Your task to perform on an android device: manage bookmarks in the chrome app Image 0: 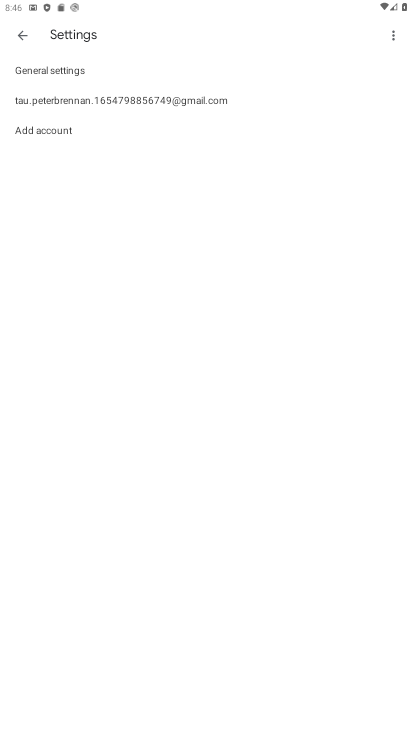
Step 0: click (70, 101)
Your task to perform on an android device: manage bookmarks in the chrome app Image 1: 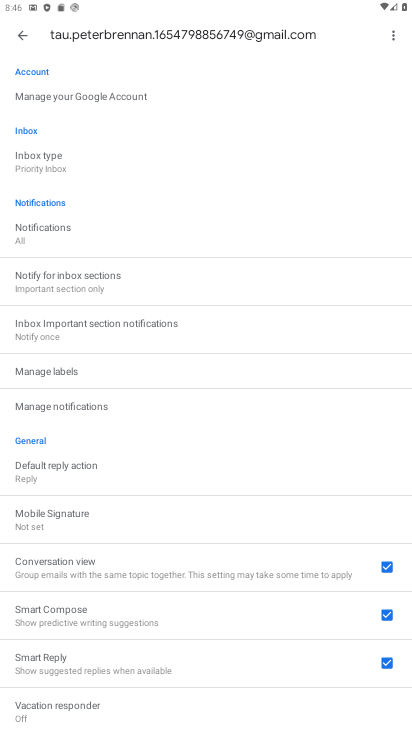
Step 1: press home button
Your task to perform on an android device: manage bookmarks in the chrome app Image 2: 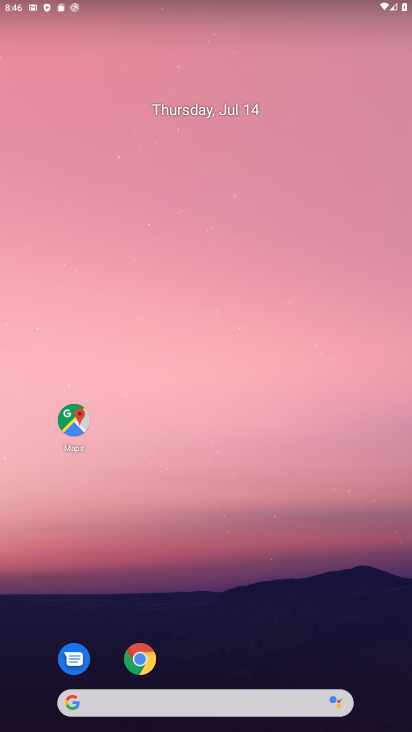
Step 2: click (150, 661)
Your task to perform on an android device: manage bookmarks in the chrome app Image 3: 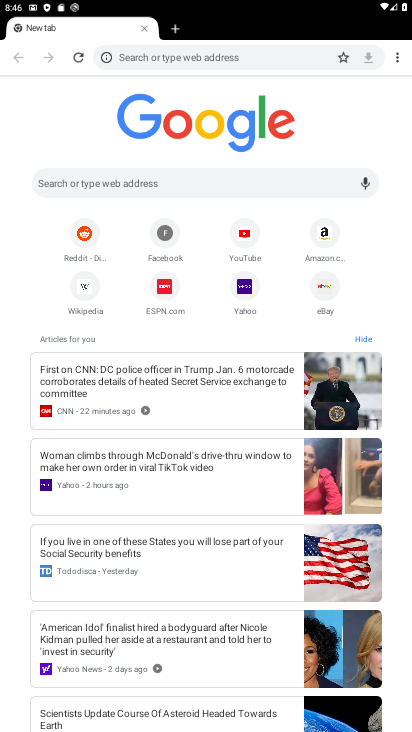
Step 3: drag from (401, 56) to (328, 114)
Your task to perform on an android device: manage bookmarks in the chrome app Image 4: 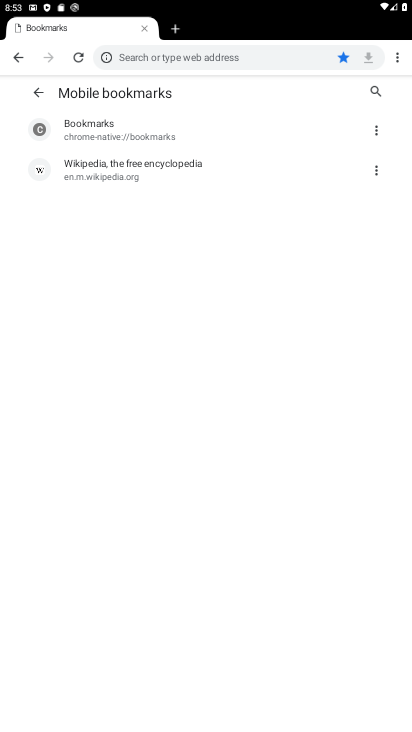
Step 4: press home button
Your task to perform on an android device: manage bookmarks in the chrome app Image 5: 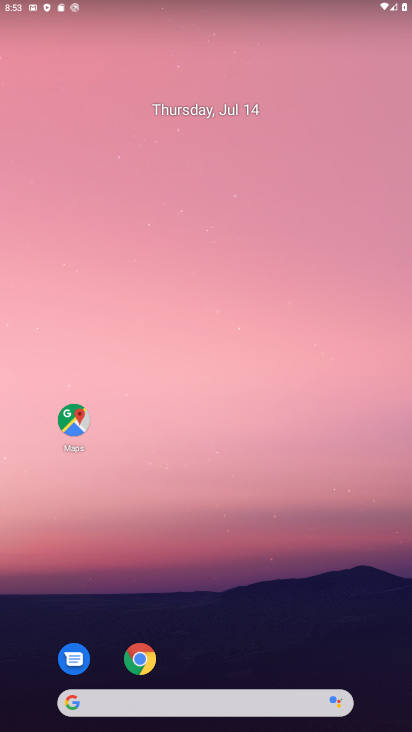
Step 5: drag from (257, 594) to (253, 110)
Your task to perform on an android device: manage bookmarks in the chrome app Image 6: 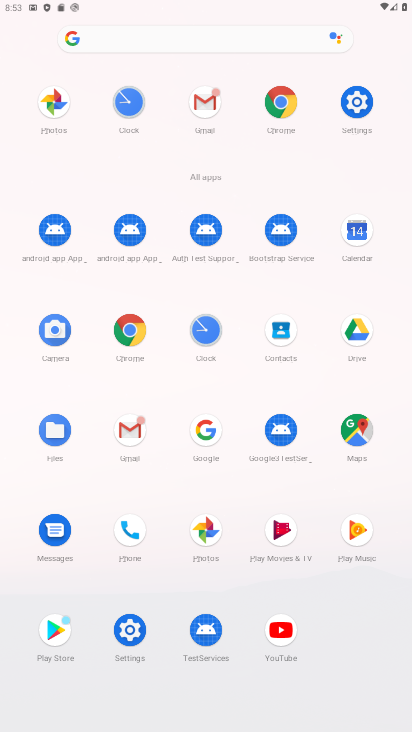
Step 6: click (359, 107)
Your task to perform on an android device: manage bookmarks in the chrome app Image 7: 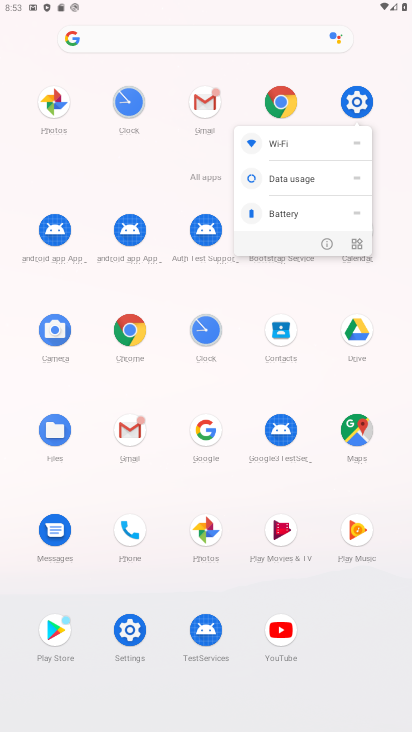
Step 7: click (277, 114)
Your task to perform on an android device: manage bookmarks in the chrome app Image 8: 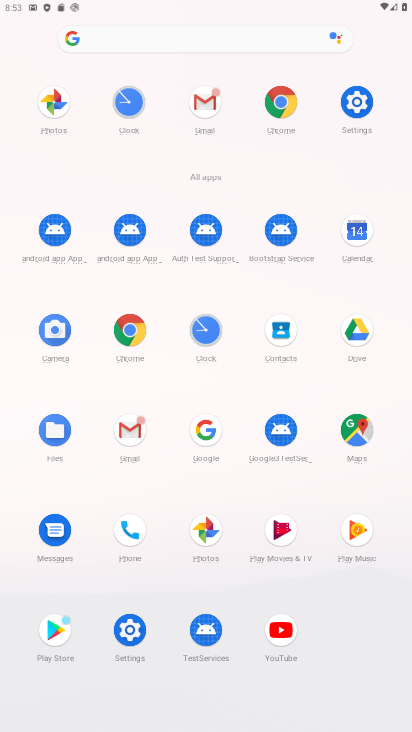
Step 8: click (300, 97)
Your task to perform on an android device: manage bookmarks in the chrome app Image 9: 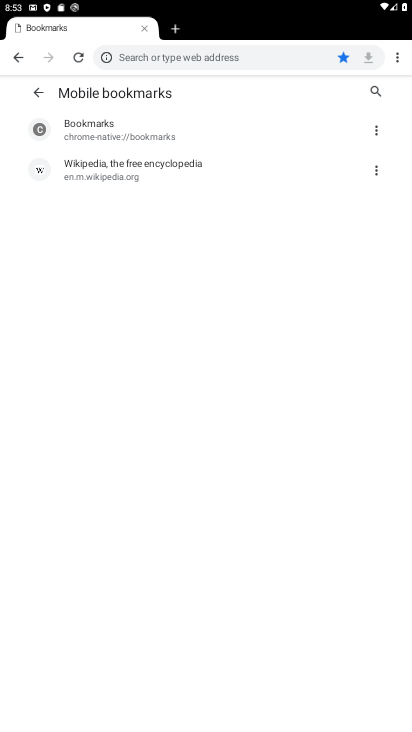
Step 9: task complete